Your task to perform on an android device: Search for vegetarian restaurants on Maps Image 0: 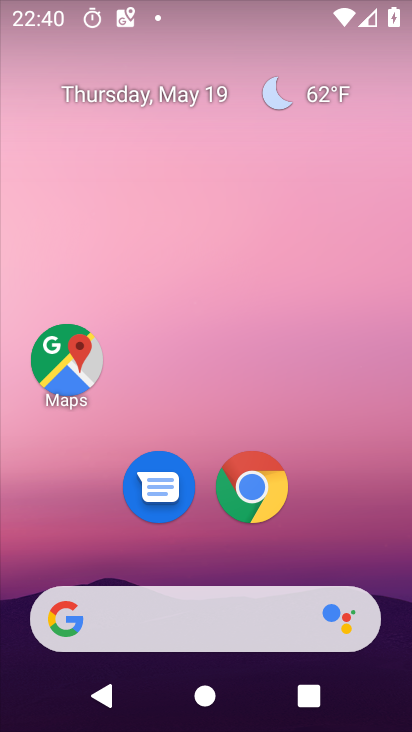
Step 0: click (80, 358)
Your task to perform on an android device: Search for vegetarian restaurants on Maps Image 1: 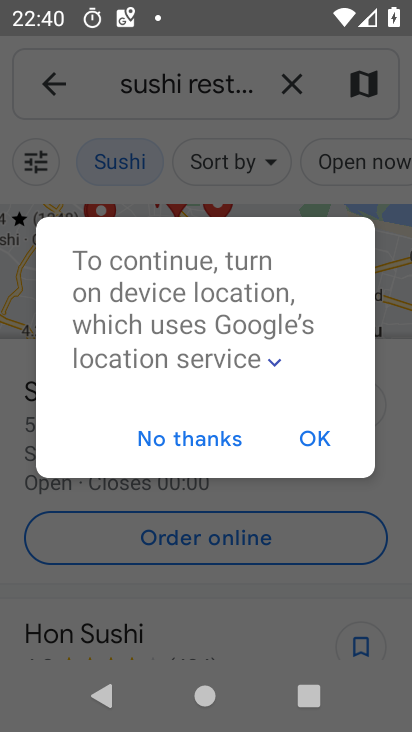
Step 1: click (310, 437)
Your task to perform on an android device: Search for vegetarian restaurants on Maps Image 2: 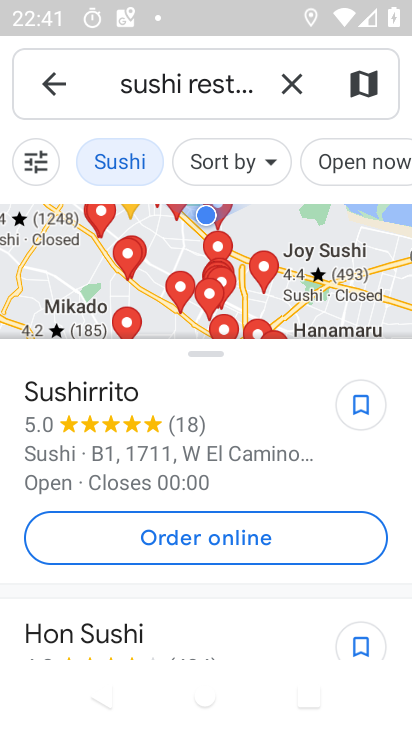
Step 2: click (295, 81)
Your task to perform on an android device: Search for vegetarian restaurants on Maps Image 3: 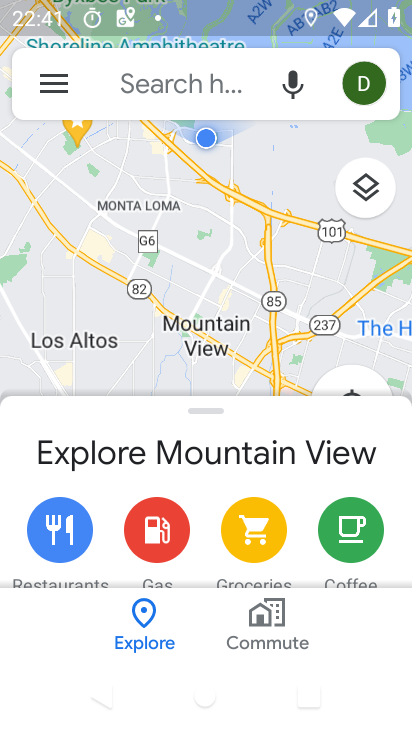
Step 3: click (229, 94)
Your task to perform on an android device: Search for vegetarian restaurants on Maps Image 4: 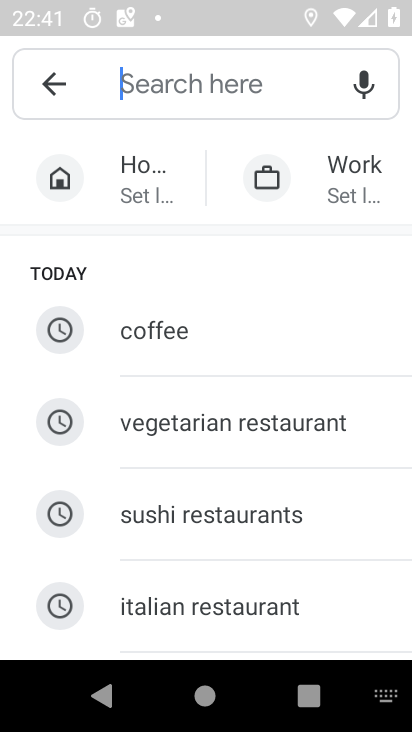
Step 4: click (244, 417)
Your task to perform on an android device: Search for vegetarian restaurants on Maps Image 5: 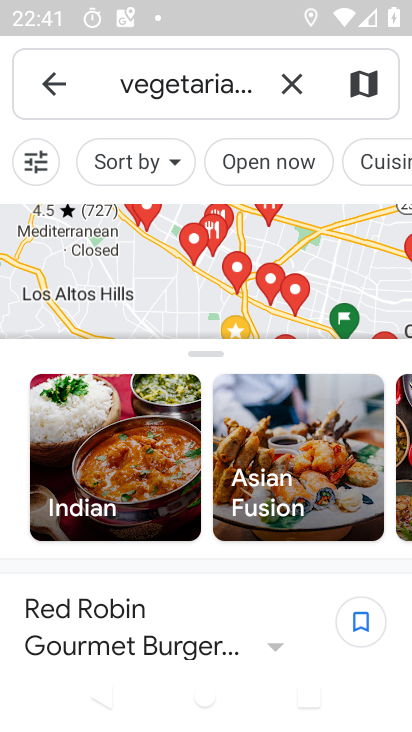
Step 5: task complete